Your task to perform on an android device: turn off notifications in google photos Image 0: 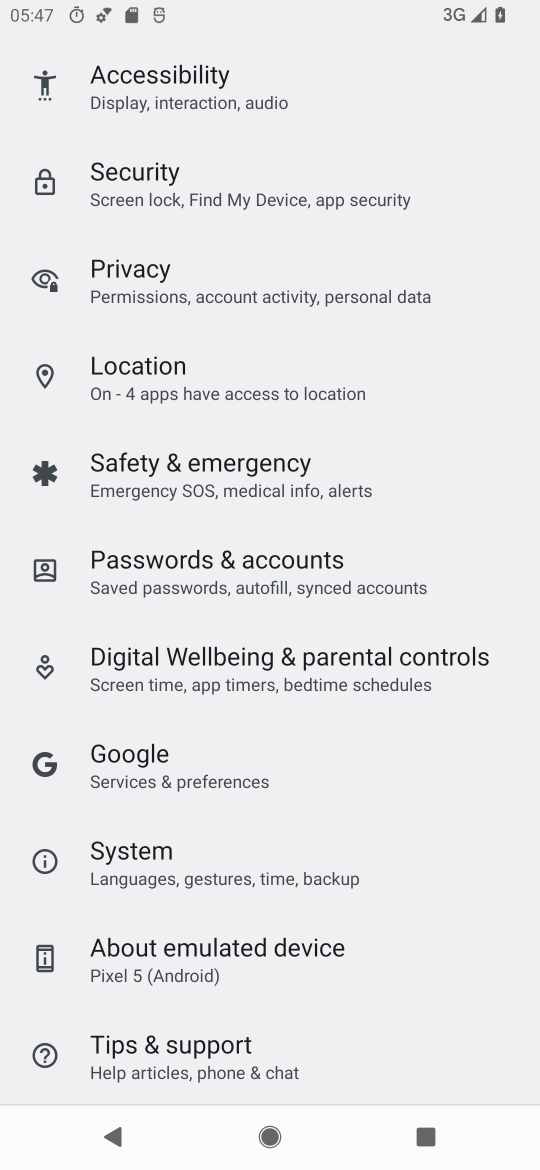
Step 0: press home button
Your task to perform on an android device: turn off notifications in google photos Image 1: 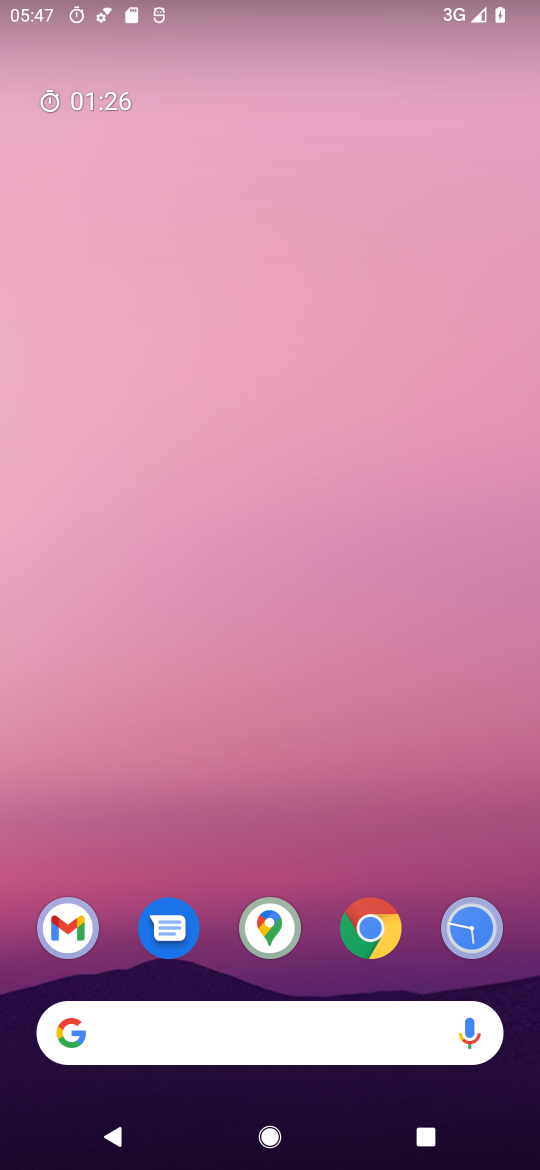
Step 1: drag from (232, 843) to (223, 30)
Your task to perform on an android device: turn off notifications in google photos Image 2: 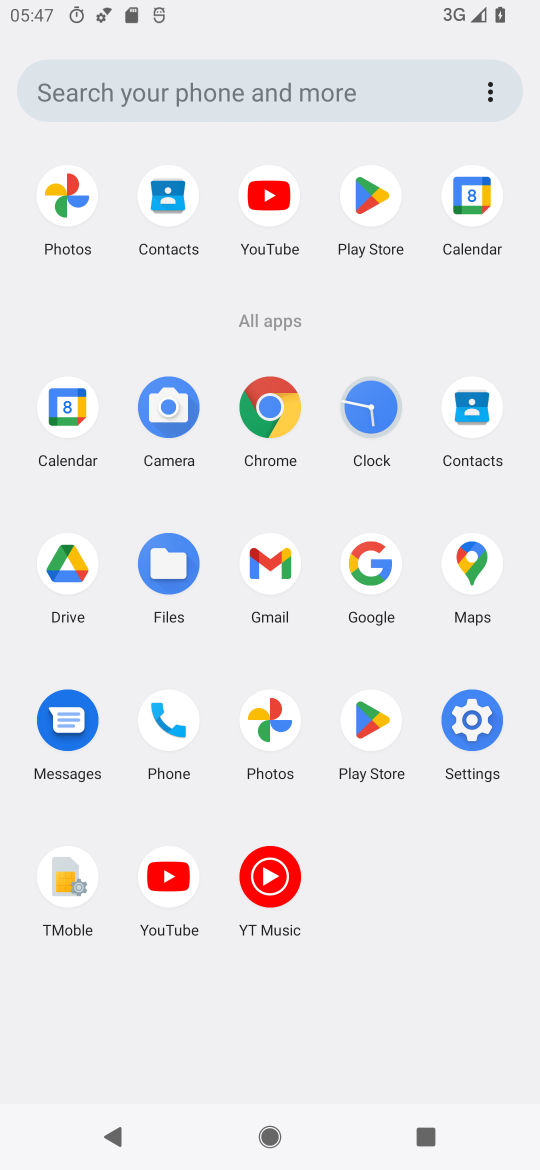
Step 2: click (257, 734)
Your task to perform on an android device: turn off notifications in google photos Image 3: 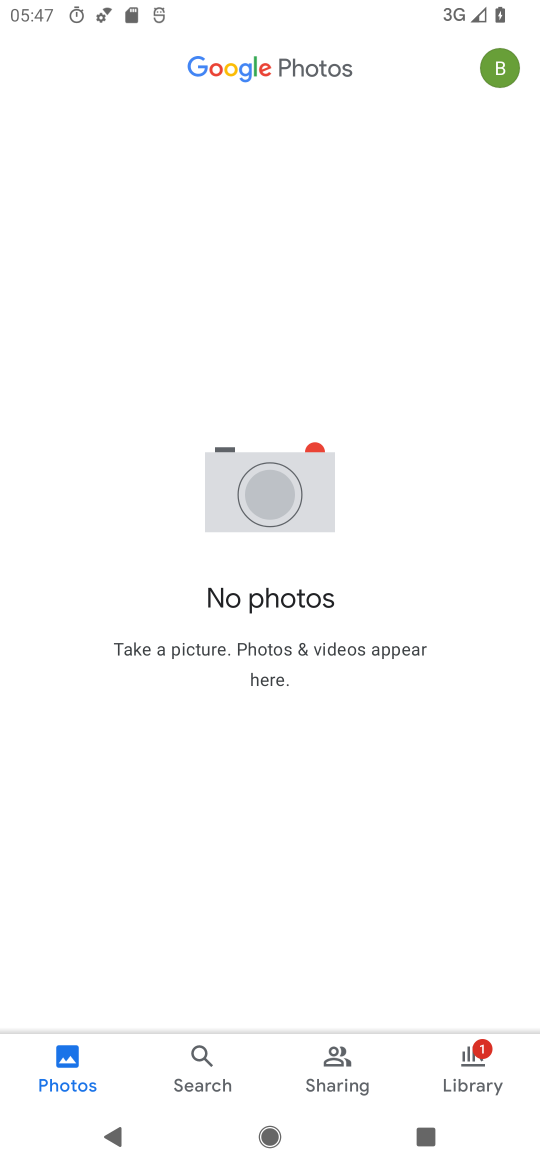
Step 3: click (496, 74)
Your task to perform on an android device: turn off notifications in google photos Image 4: 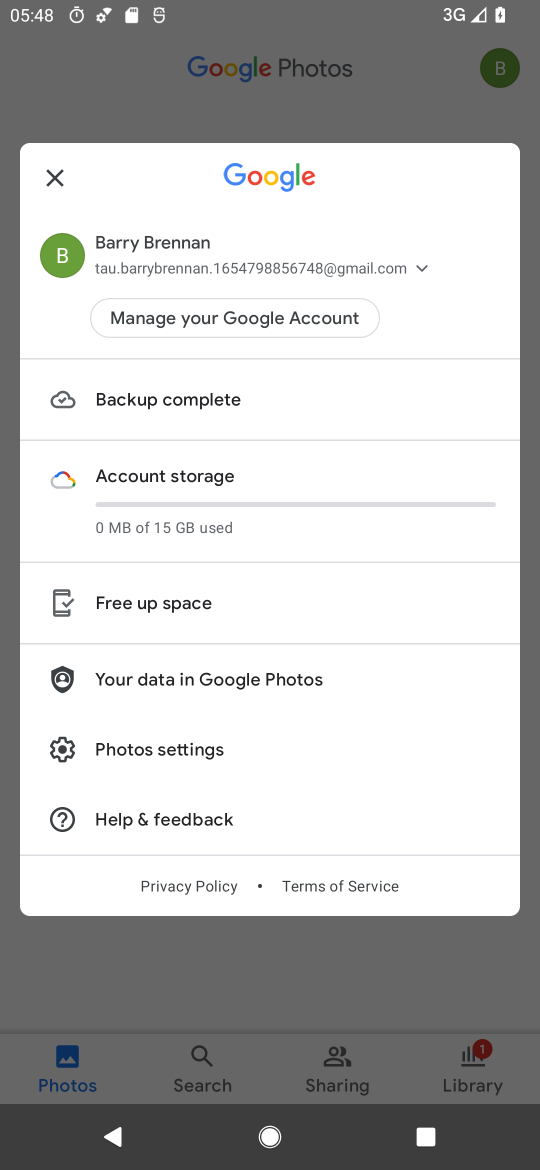
Step 4: click (202, 759)
Your task to perform on an android device: turn off notifications in google photos Image 5: 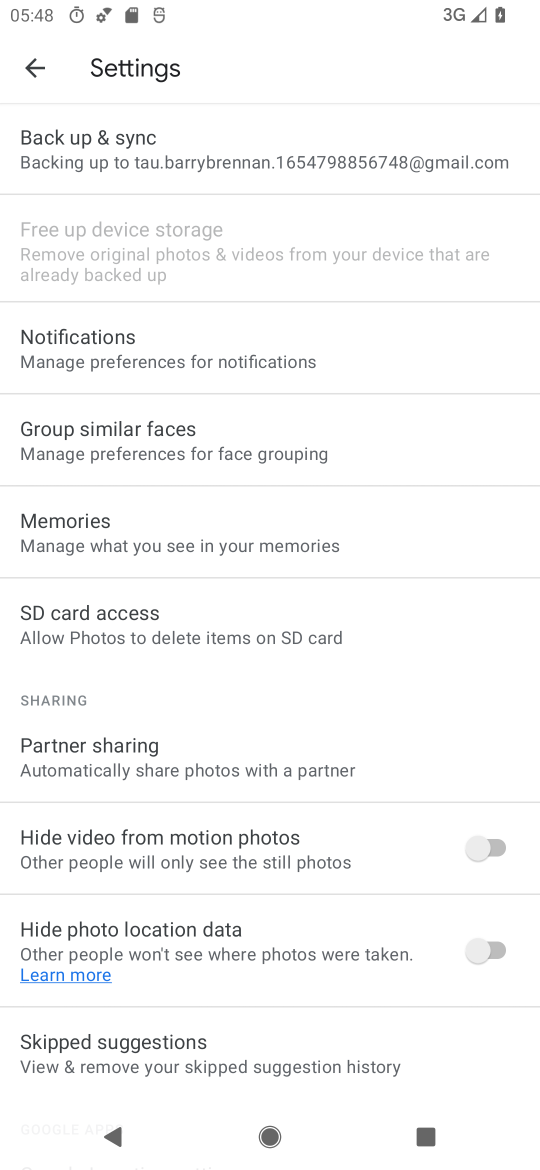
Step 5: click (176, 362)
Your task to perform on an android device: turn off notifications in google photos Image 6: 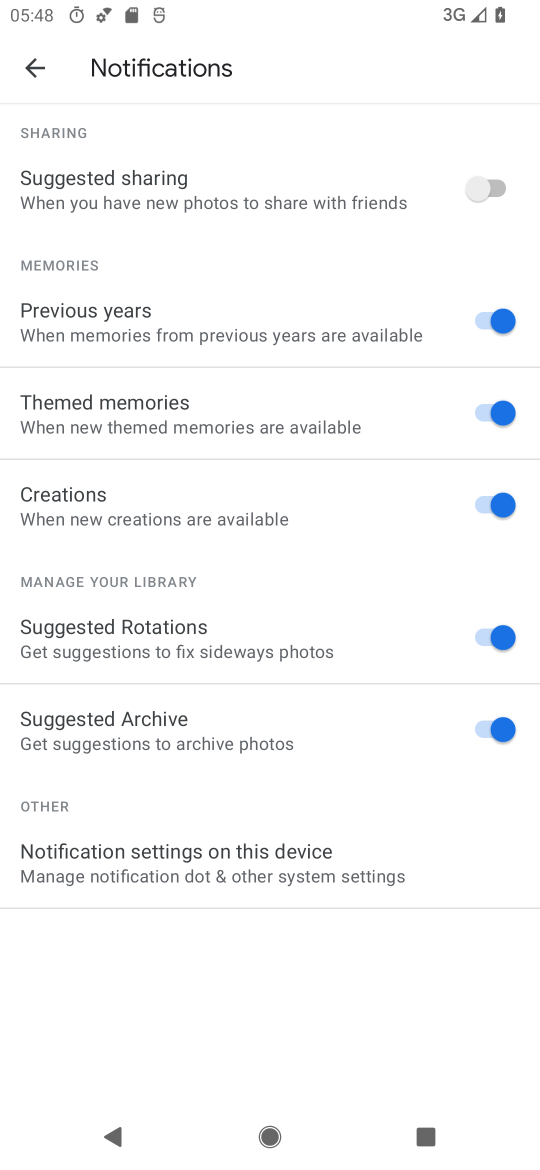
Step 6: click (249, 847)
Your task to perform on an android device: turn off notifications in google photos Image 7: 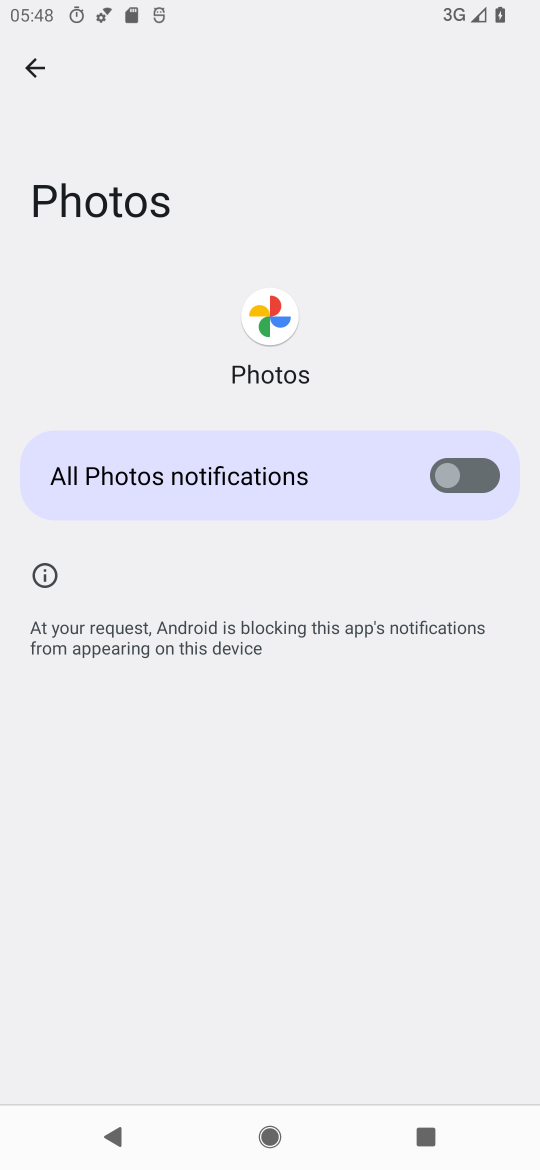
Step 7: task complete